Your task to perform on an android device: Open battery settings Image 0: 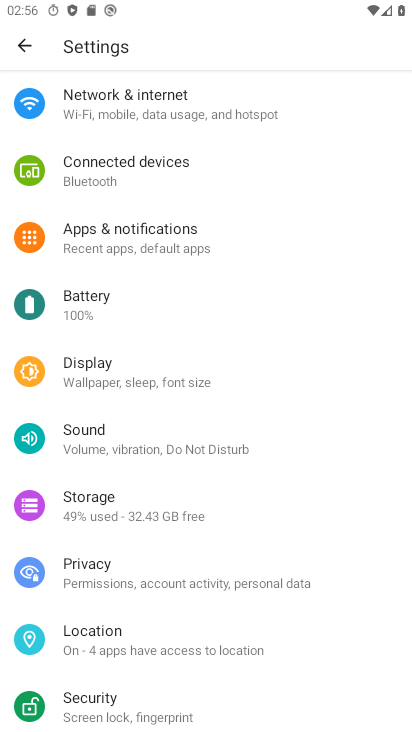
Step 0: click (93, 310)
Your task to perform on an android device: Open battery settings Image 1: 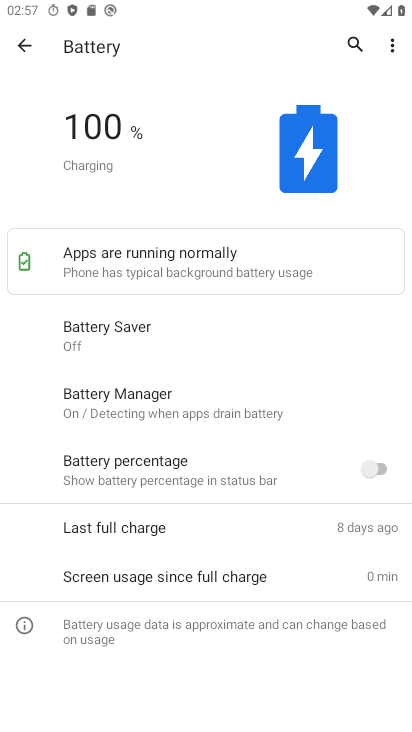
Step 1: task complete